Your task to perform on an android device: Go to Google maps Image 0: 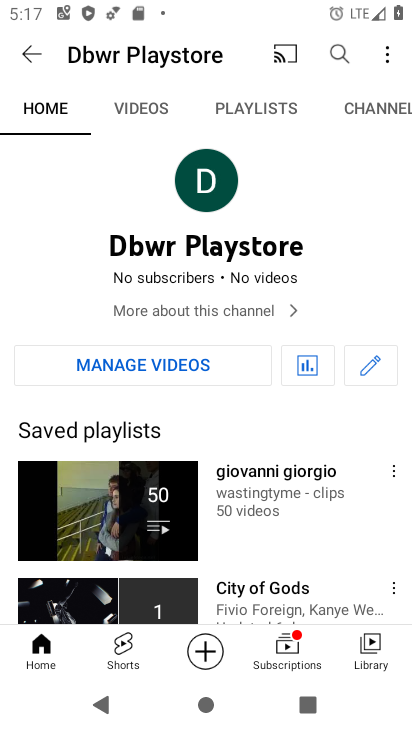
Step 0: press home button
Your task to perform on an android device: Go to Google maps Image 1: 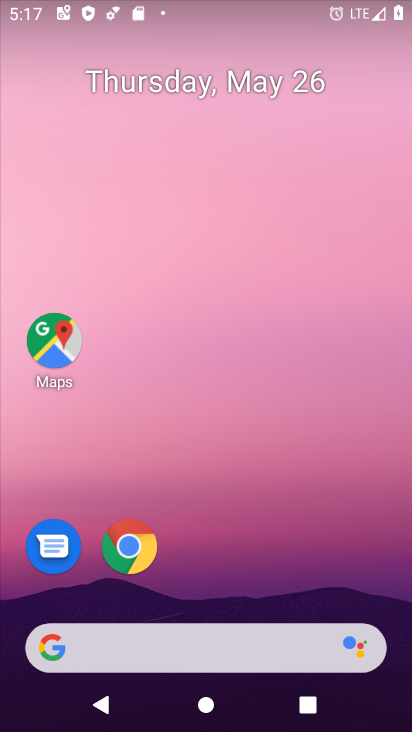
Step 1: click (46, 338)
Your task to perform on an android device: Go to Google maps Image 2: 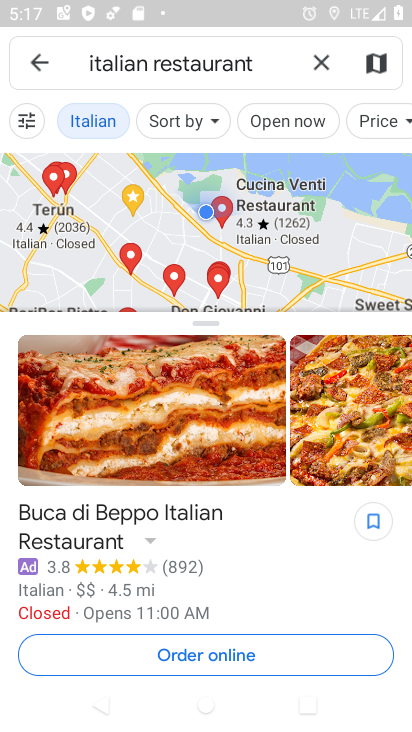
Step 2: task complete